Your task to perform on an android device: Add logitech g910 to the cart on costco, then select checkout. Image 0: 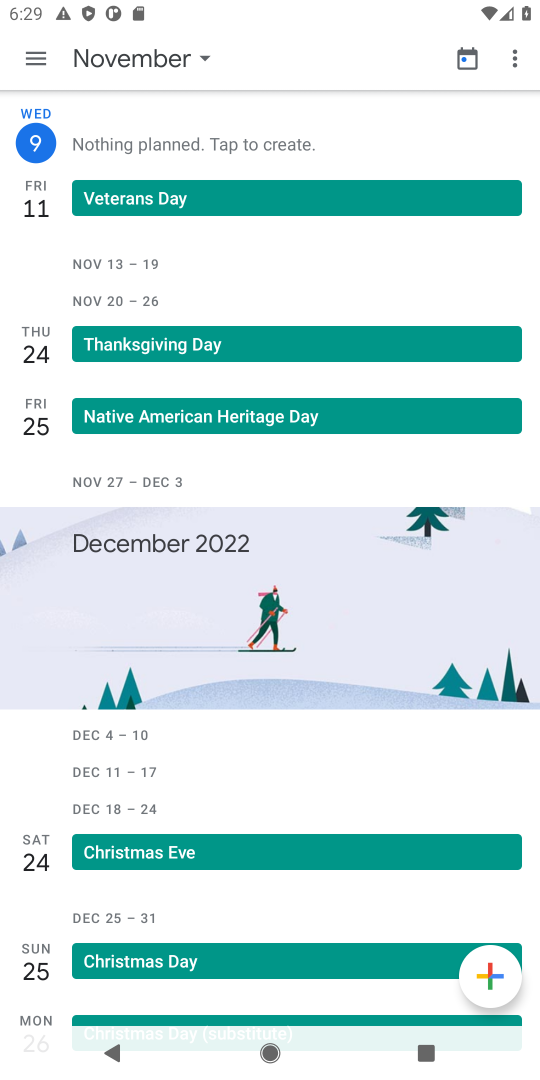
Step 0: press home button
Your task to perform on an android device: Add logitech g910 to the cart on costco, then select checkout. Image 1: 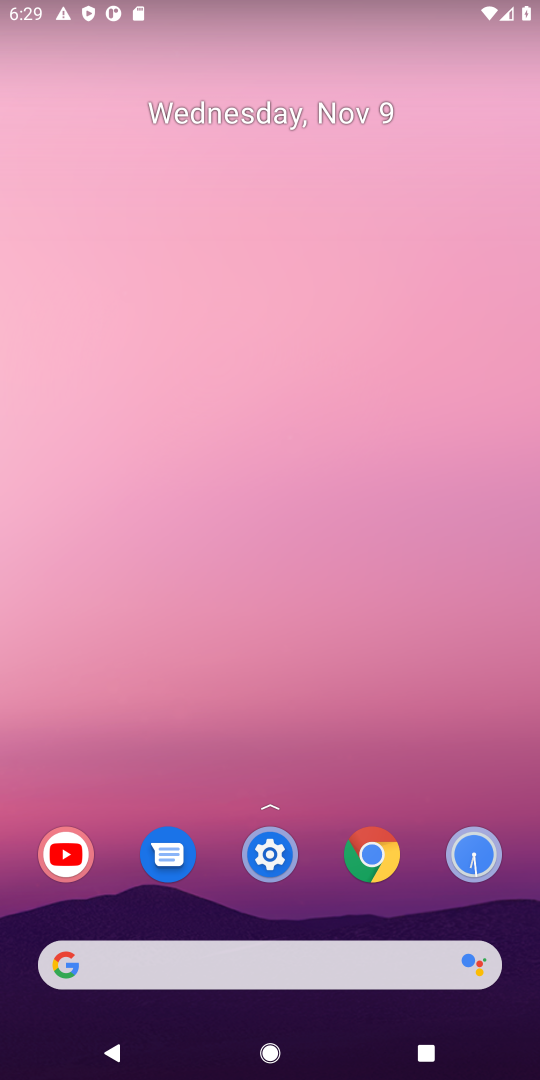
Step 1: click (274, 970)
Your task to perform on an android device: Add logitech g910 to the cart on costco, then select checkout. Image 2: 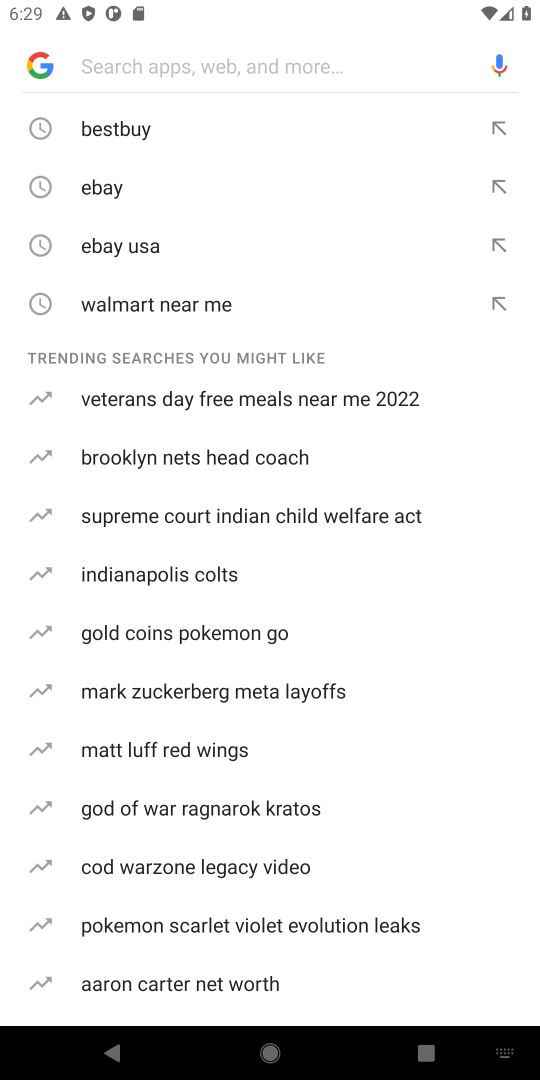
Step 2: type "costco"
Your task to perform on an android device: Add logitech g910 to the cart on costco, then select checkout. Image 3: 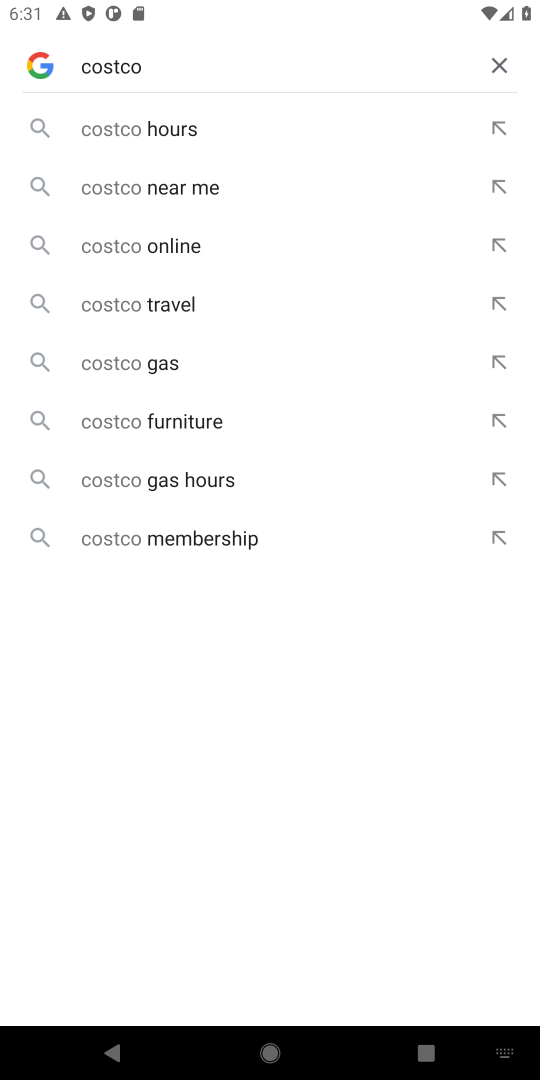
Step 3: click (233, 231)
Your task to perform on an android device: Add logitech g910 to the cart on costco, then select checkout. Image 4: 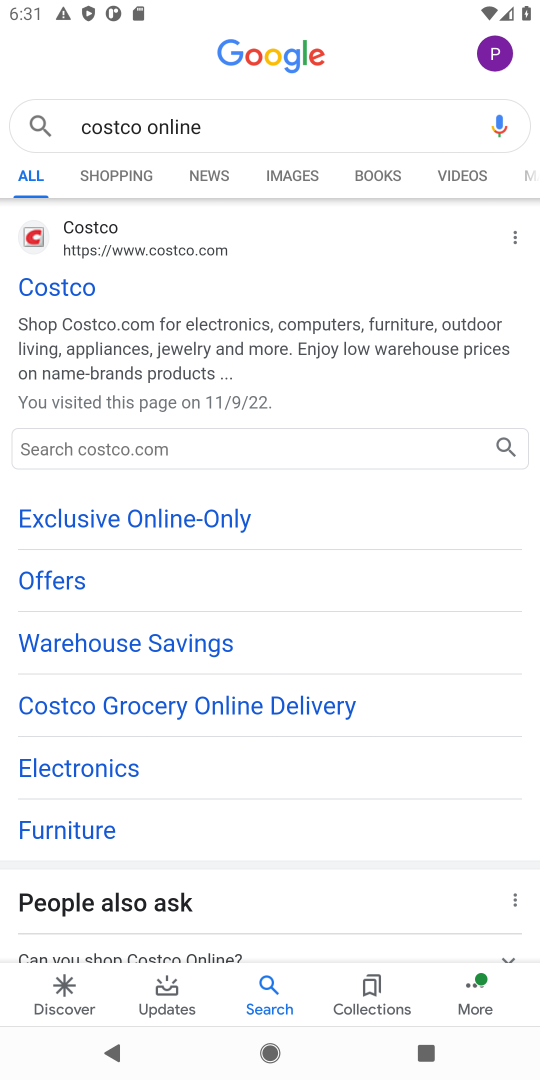
Step 4: task complete